Your task to perform on an android device: Open Google Image 0: 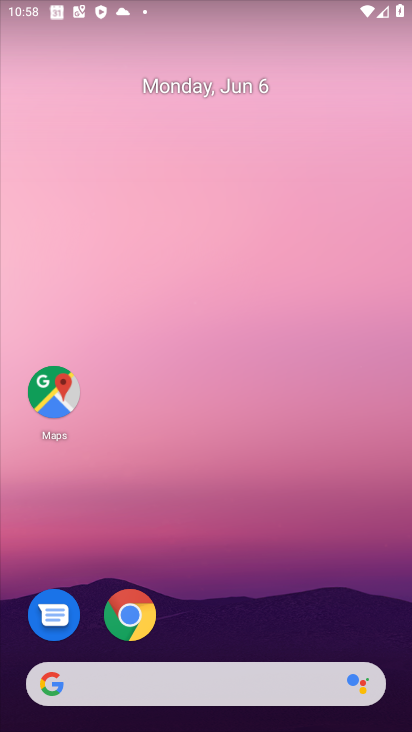
Step 0: click (196, 675)
Your task to perform on an android device: Open Google Image 1: 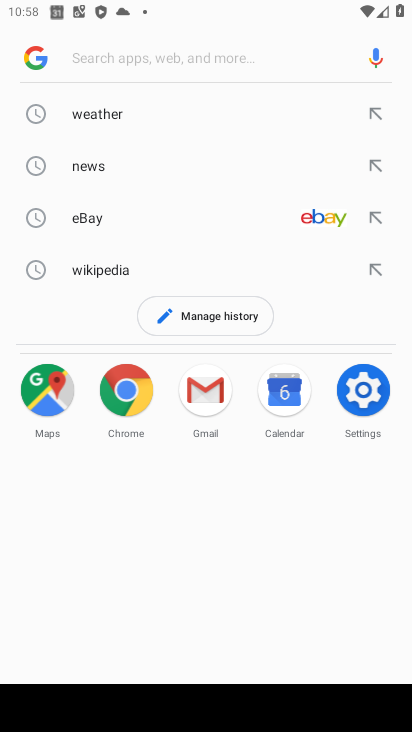
Step 1: type "google.com"
Your task to perform on an android device: Open Google Image 2: 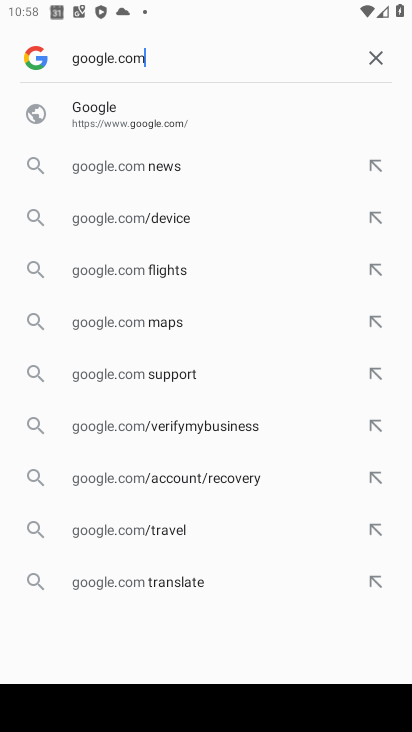
Step 2: click (91, 124)
Your task to perform on an android device: Open Google Image 3: 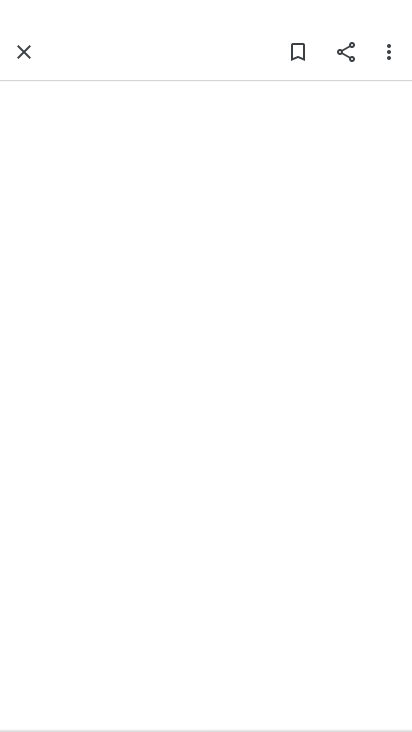
Step 3: task complete